Your task to perform on an android device: Go to calendar. Show me events next week Image 0: 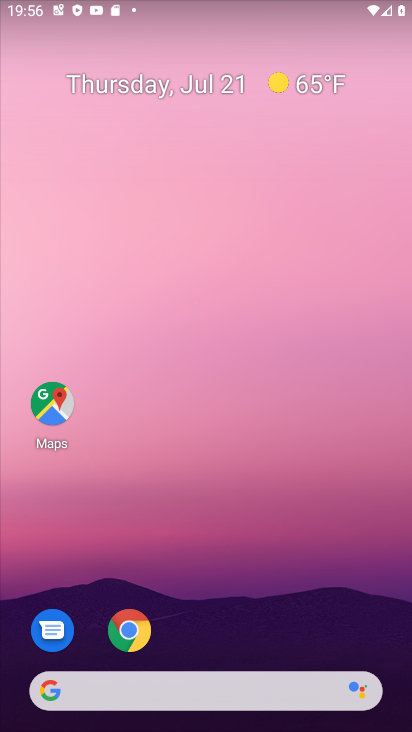
Step 0: drag from (182, 686) to (202, 83)
Your task to perform on an android device: Go to calendar. Show me events next week Image 1: 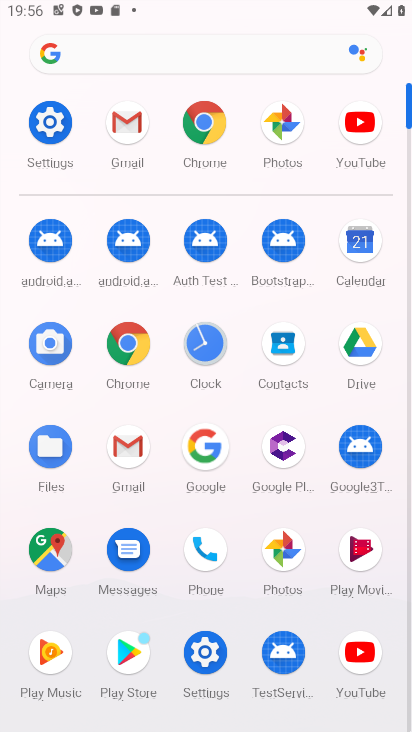
Step 1: click (359, 237)
Your task to perform on an android device: Go to calendar. Show me events next week Image 2: 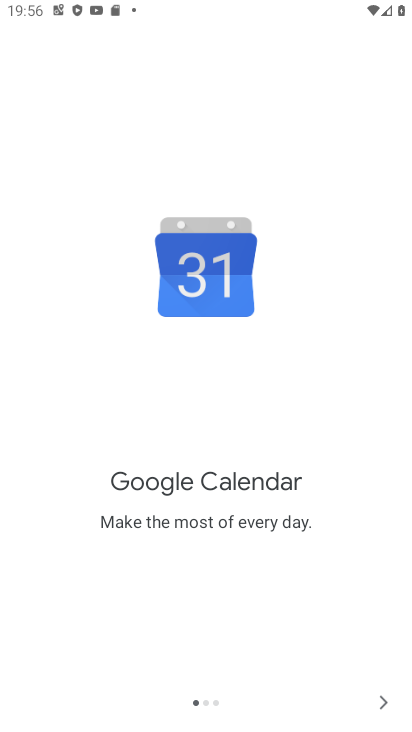
Step 2: click (377, 707)
Your task to perform on an android device: Go to calendar. Show me events next week Image 3: 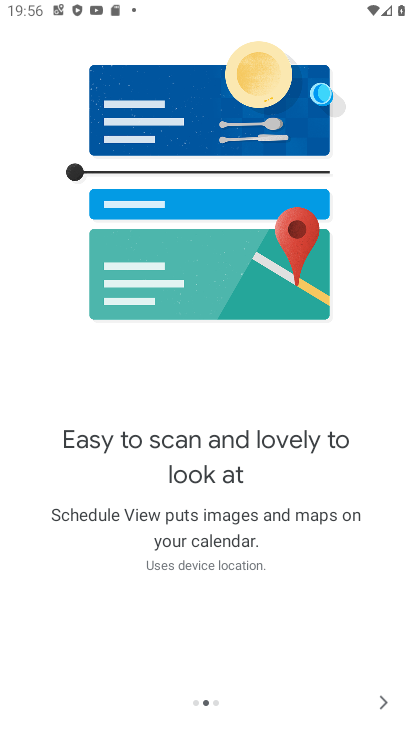
Step 3: click (377, 707)
Your task to perform on an android device: Go to calendar. Show me events next week Image 4: 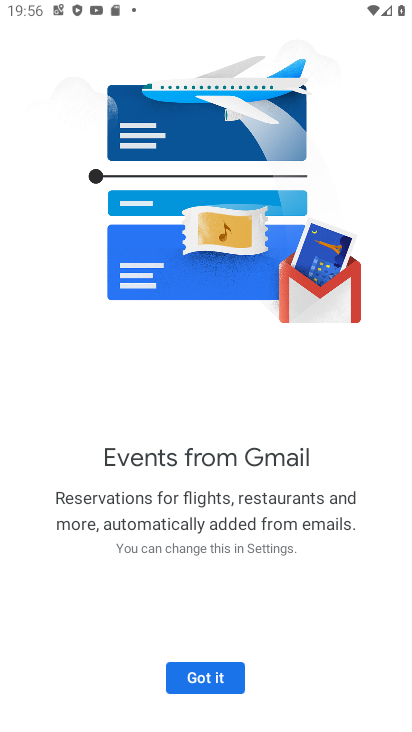
Step 4: click (197, 682)
Your task to perform on an android device: Go to calendar. Show me events next week Image 5: 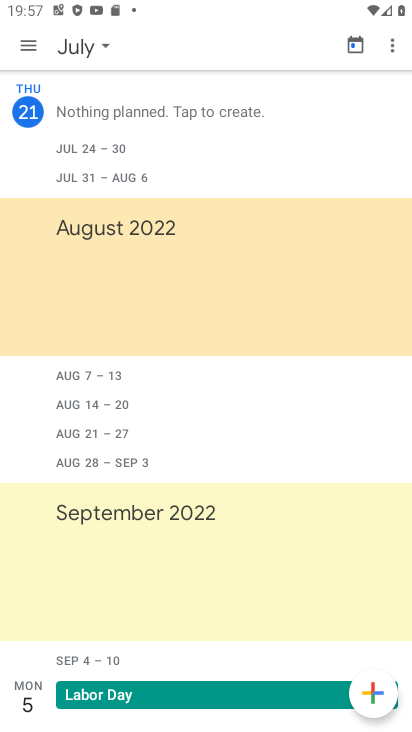
Step 5: click (74, 43)
Your task to perform on an android device: Go to calendar. Show me events next week Image 6: 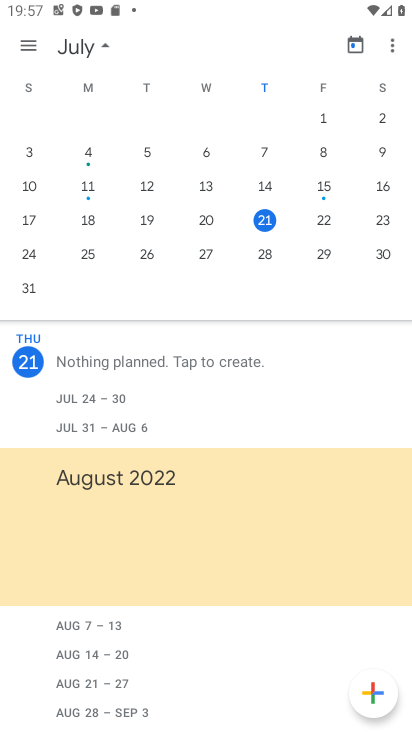
Step 6: click (22, 254)
Your task to perform on an android device: Go to calendar. Show me events next week Image 7: 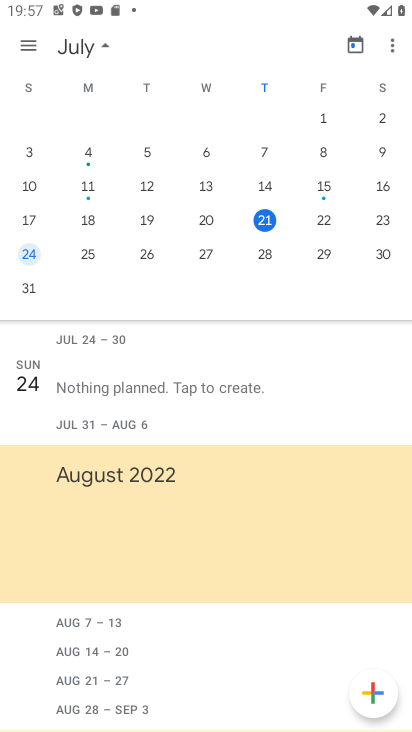
Step 7: task complete